Your task to perform on an android device: Go to battery settings Image 0: 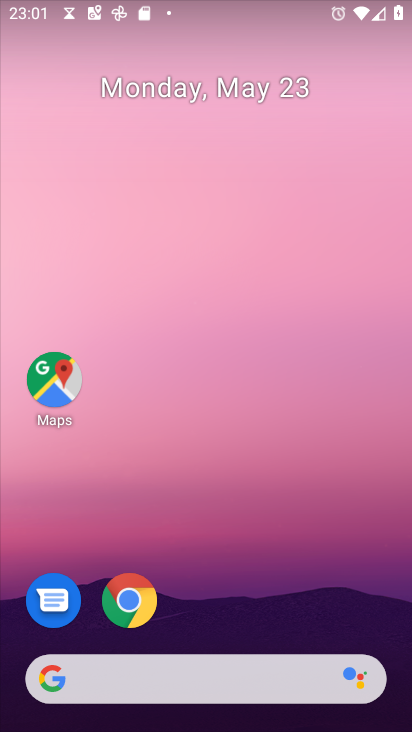
Step 0: drag from (221, 725) to (199, 141)
Your task to perform on an android device: Go to battery settings Image 1: 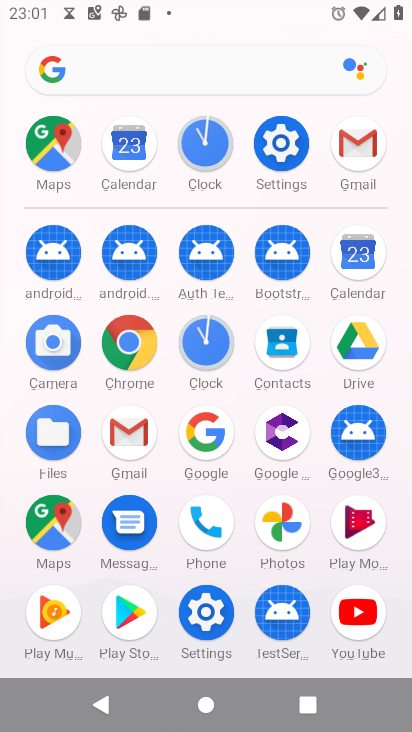
Step 1: click (276, 152)
Your task to perform on an android device: Go to battery settings Image 2: 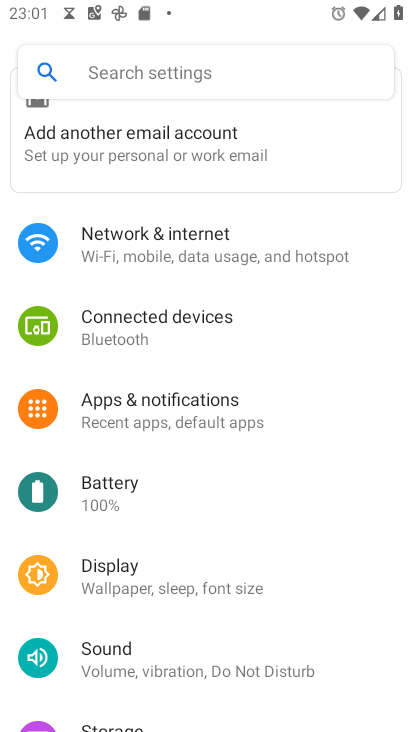
Step 2: click (113, 485)
Your task to perform on an android device: Go to battery settings Image 3: 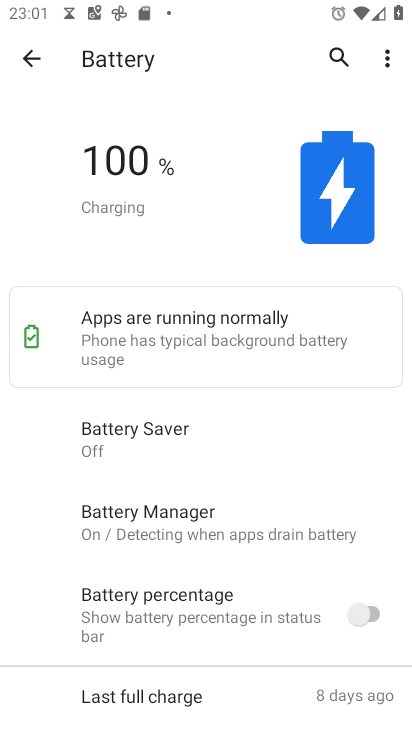
Step 3: task complete